Your task to perform on an android device: toggle priority inbox in the gmail app Image 0: 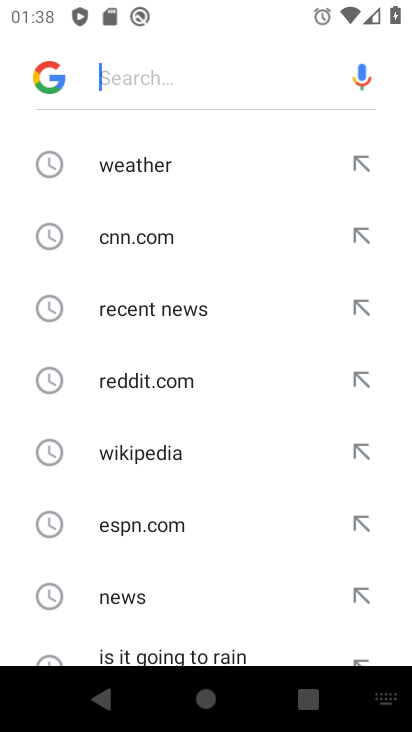
Step 0: press home button
Your task to perform on an android device: toggle priority inbox in the gmail app Image 1: 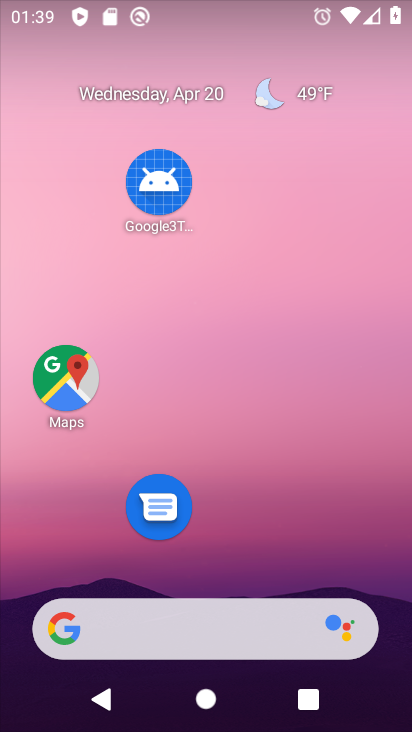
Step 1: drag from (267, 536) to (226, 16)
Your task to perform on an android device: toggle priority inbox in the gmail app Image 2: 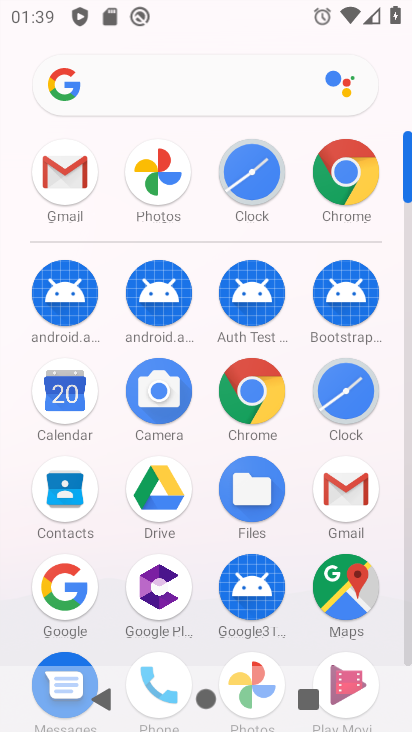
Step 2: click (59, 179)
Your task to perform on an android device: toggle priority inbox in the gmail app Image 3: 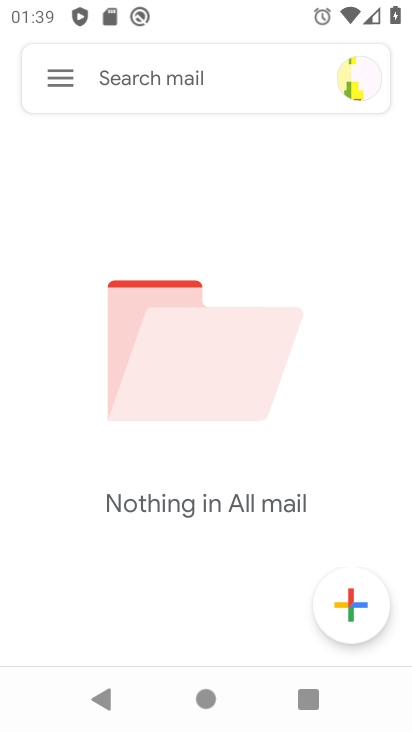
Step 3: click (57, 75)
Your task to perform on an android device: toggle priority inbox in the gmail app Image 4: 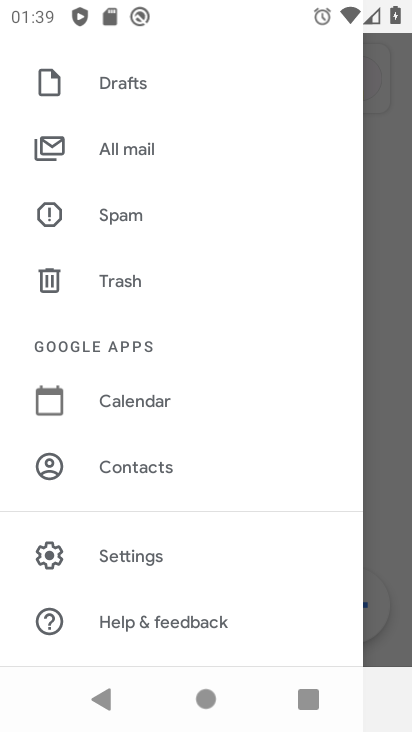
Step 4: click (124, 556)
Your task to perform on an android device: toggle priority inbox in the gmail app Image 5: 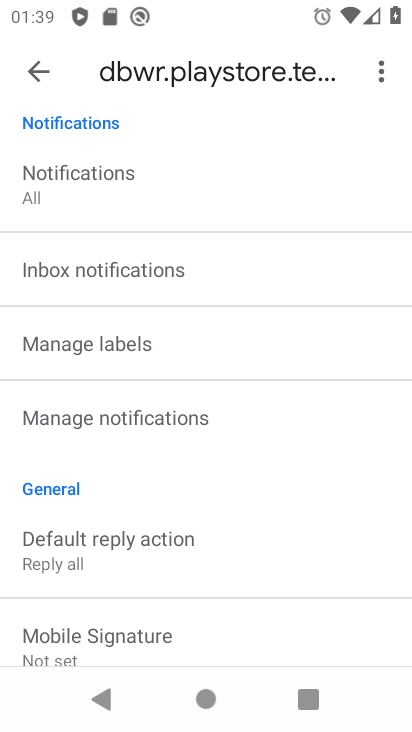
Step 5: click (33, 73)
Your task to perform on an android device: toggle priority inbox in the gmail app Image 6: 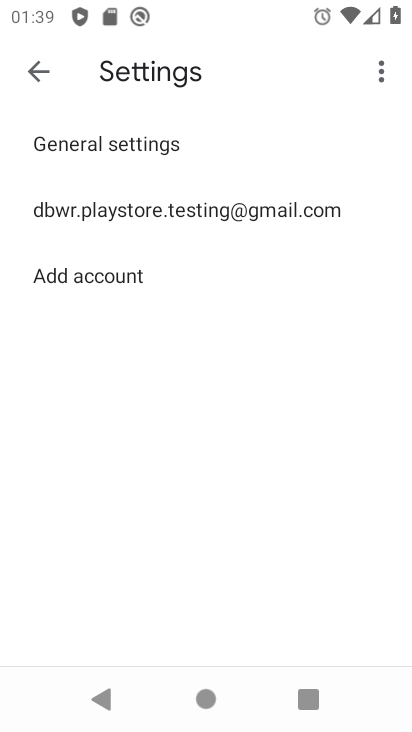
Step 6: click (140, 206)
Your task to perform on an android device: toggle priority inbox in the gmail app Image 7: 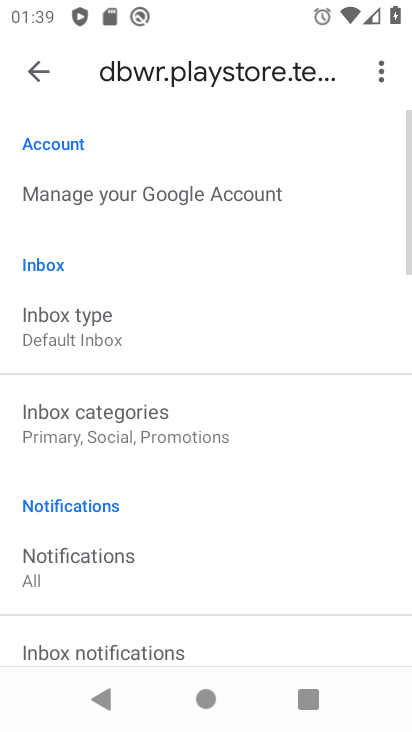
Step 7: click (38, 333)
Your task to perform on an android device: toggle priority inbox in the gmail app Image 8: 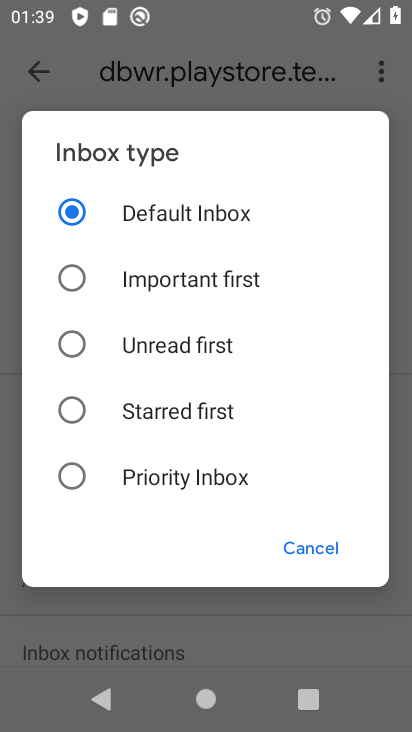
Step 8: click (71, 473)
Your task to perform on an android device: toggle priority inbox in the gmail app Image 9: 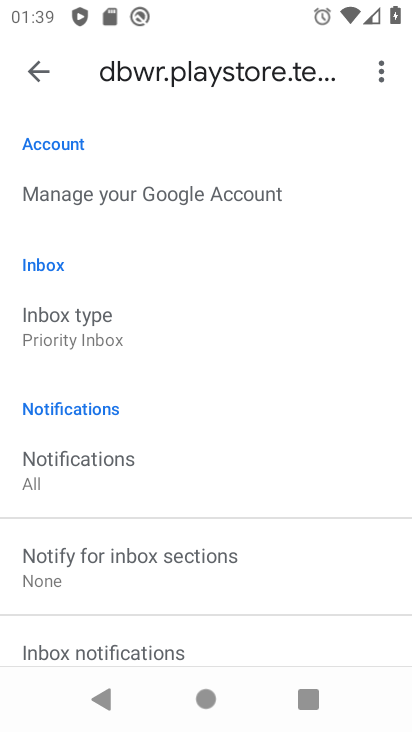
Step 9: task complete